Your task to perform on an android device: toggle location history Image 0: 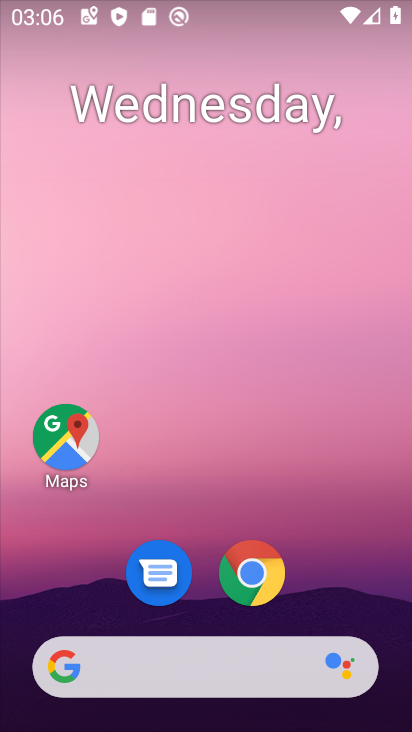
Step 0: drag from (333, 598) to (336, 156)
Your task to perform on an android device: toggle location history Image 1: 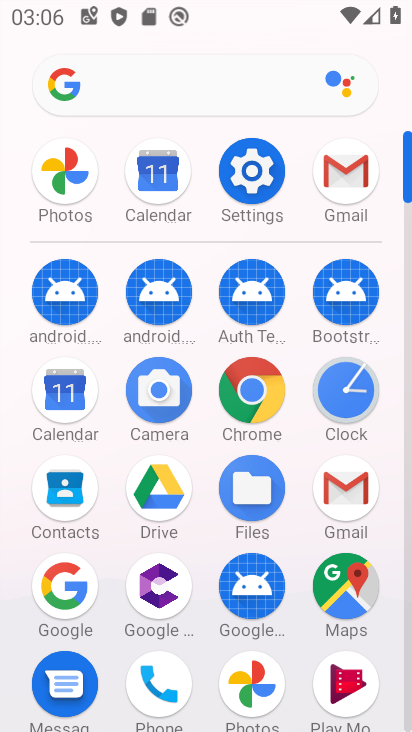
Step 1: click (253, 169)
Your task to perform on an android device: toggle location history Image 2: 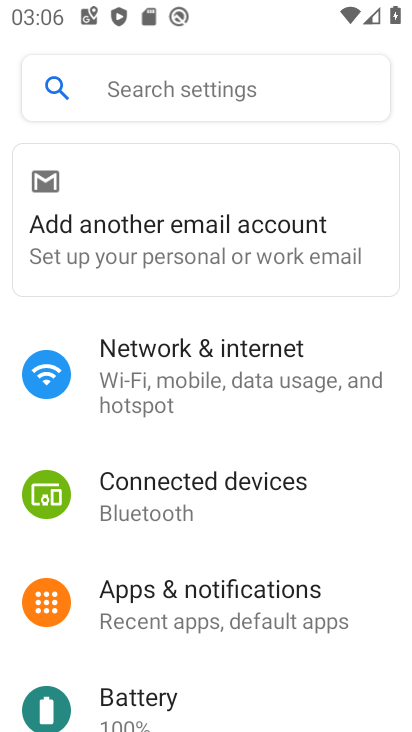
Step 2: drag from (205, 540) to (254, 416)
Your task to perform on an android device: toggle location history Image 3: 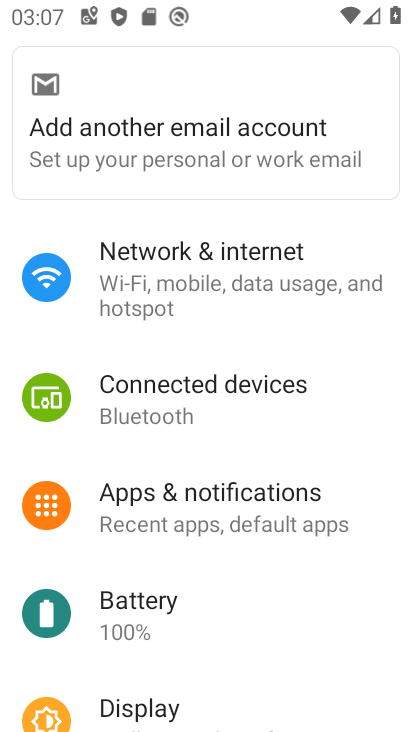
Step 3: drag from (198, 561) to (265, 414)
Your task to perform on an android device: toggle location history Image 4: 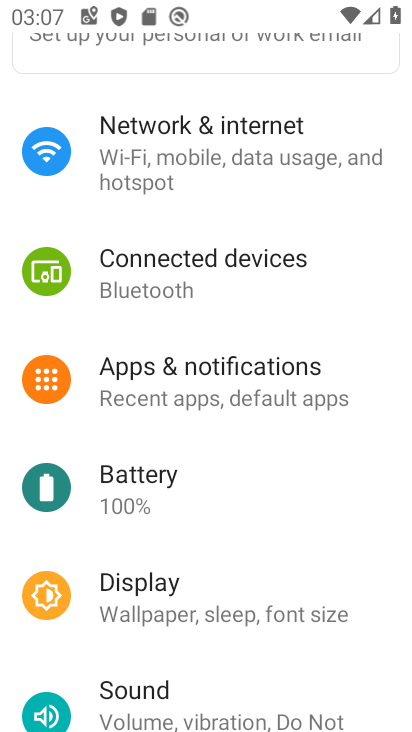
Step 4: drag from (217, 515) to (227, 387)
Your task to perform on an android device: toggle location history Image 5: 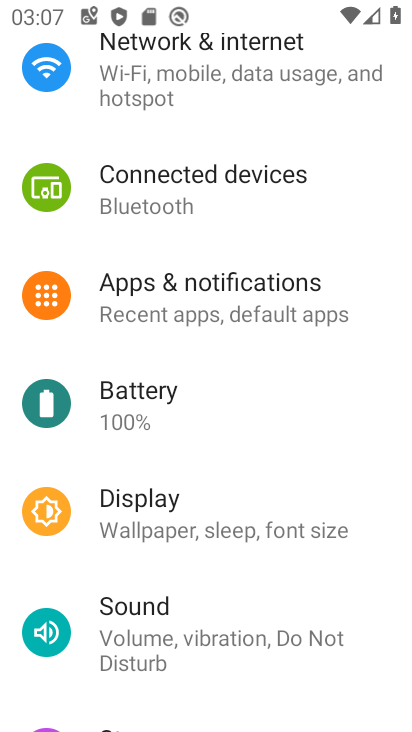
Step 5: drag from (208, 482) to (287, 334)
Your task to perform on an android device: toggle location history Image 6: 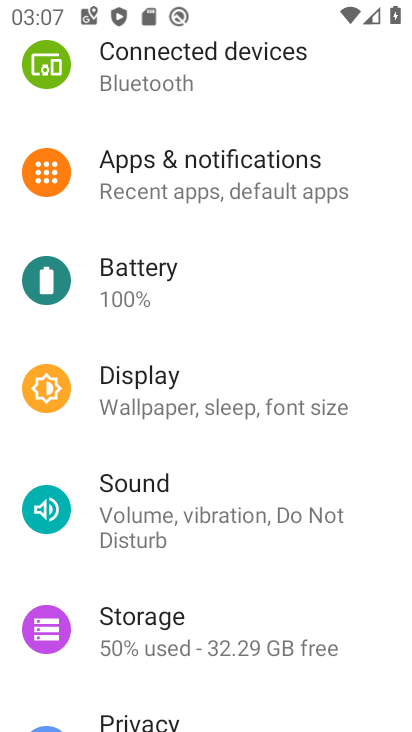
Step 6: drag from (222, 565) to (289, 350)
Your task to perform on an android device: toggle location history Image 7: 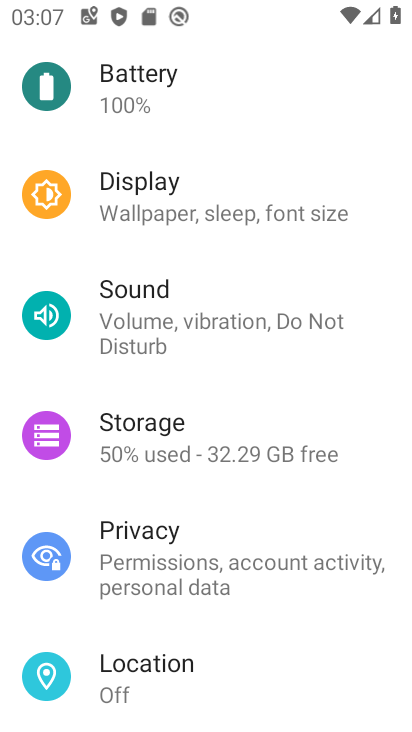
Step 7: drag from (231, 625) to (312, 467)
Your task to perform on an android device: toggle location history Image 8: 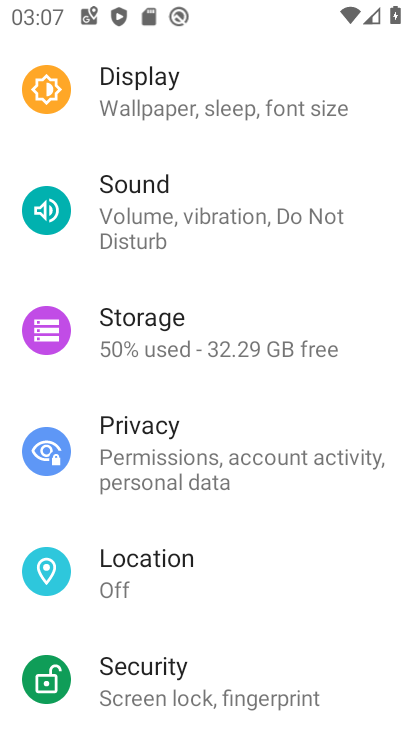
Step 8: click (146, 558)
Your task to perform on an android device: toggle location history Image 9: 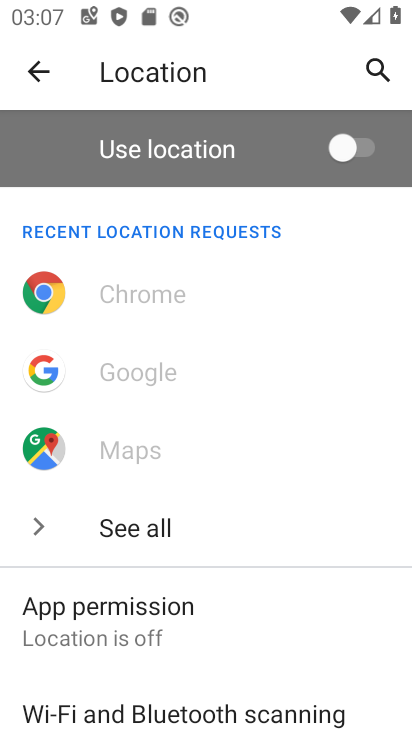
Step 9: drag from (206, 615) to (312, 414)
Your task to perform on an android device: toggle location history Image 10: 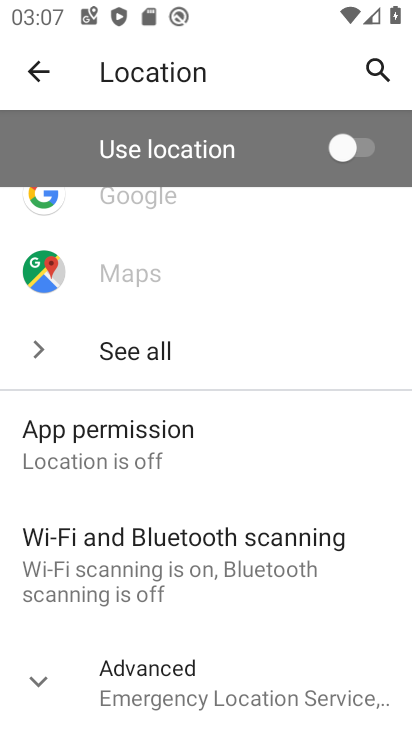
Step 10: drag from (225, 623) to (301, 459)
Your task to perform on an android device: toggle location history Image 11: 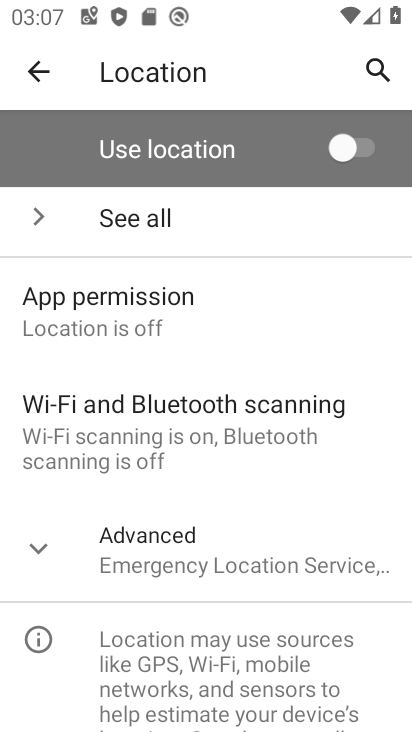
Step 11: click (218, 558)
Your task to perform on an android device: toggle location history Image 12: 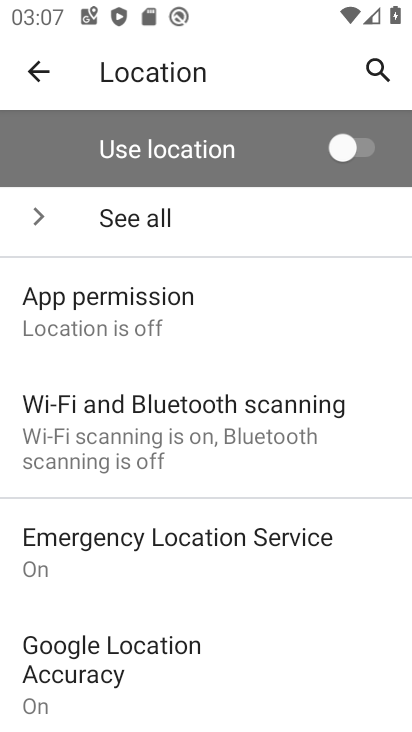
Step 12: drag from (193, 594) to (298, 430)
Your task to perform on an android device: toggle location history Image 13: 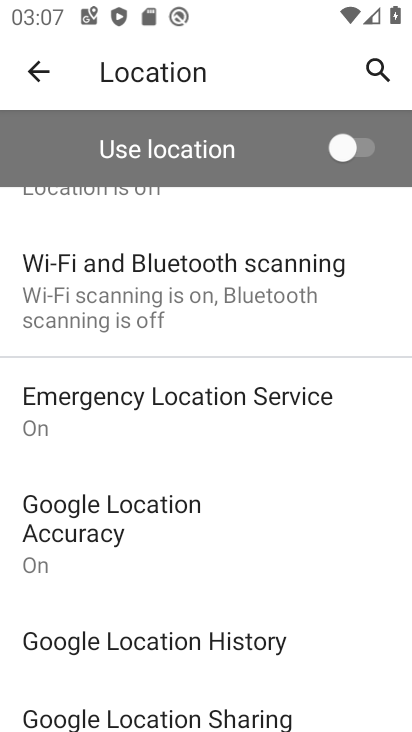
Step 13: drag from (177, 617) to (271, 489)
Your task to perform on an android device: toggle location history Image 14: 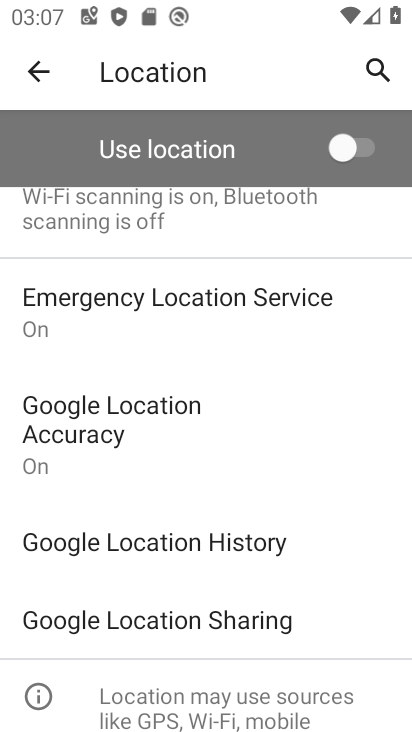
Step 14: click (217, 539)
Your task to perform on an android device: toggle location history Image 15: 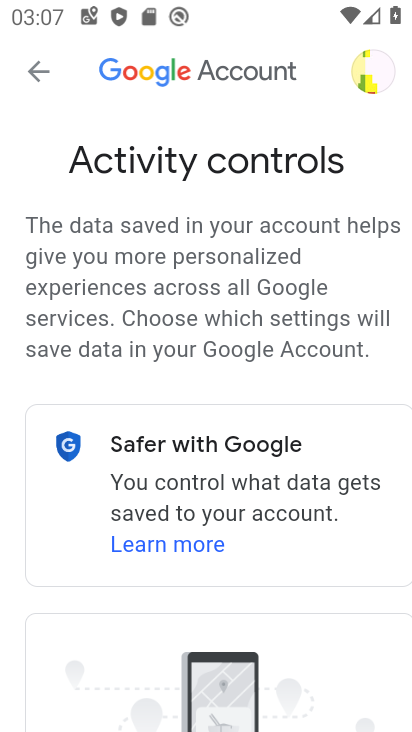
Step 15: drag from (304, 685) to (302, 240)
Your task to perform on an android device: toggle location history Image 16: 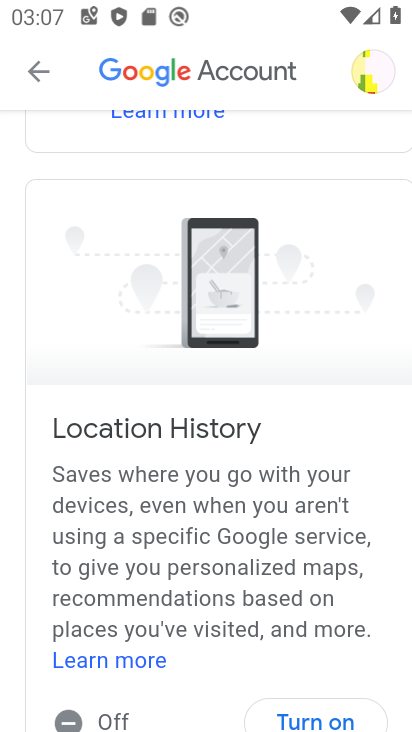
Step 16: drag from (214, 579) to (267, 346)
Your task to perform on an android device: toggle location history Image 17: 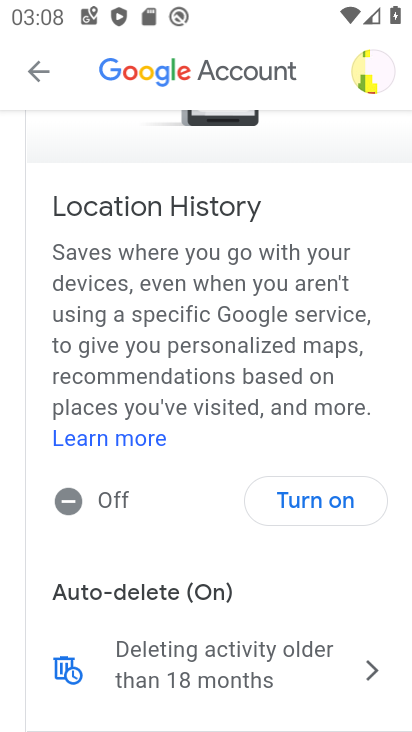
Step 17: click (310, 501)
Your task to perform on an android device: toggle location history Image 18: 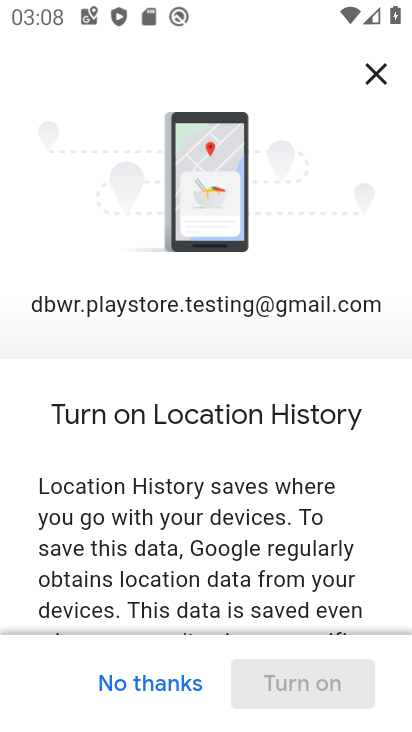
Step 18: drag from (289, 556) to (323, 302)
Your task to perform on an android device: toggle location history Image 19: 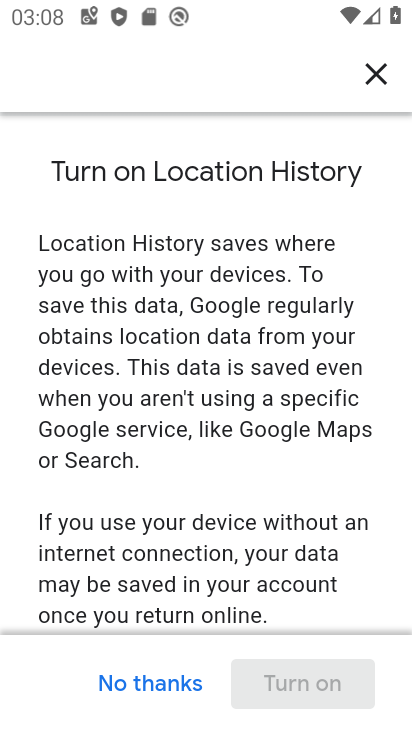
Step 19: drag from (307, 508) to (376, 267)
Your task to perform on an android device: toggle location history Image 20: 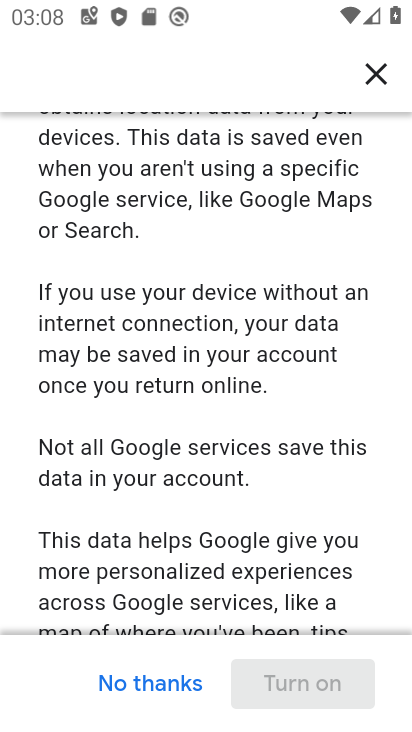
Step 20: drag from (296, 535) to (331, 297)
Your task to perform on an android device: toggle location history Image 21: 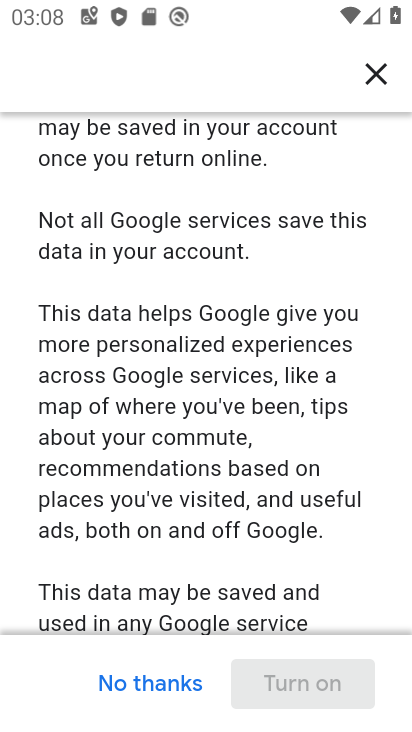
Step 21: drag from (312, 554) to (352, 265)
Your task to perform on an android device: toggle location history Image 22: 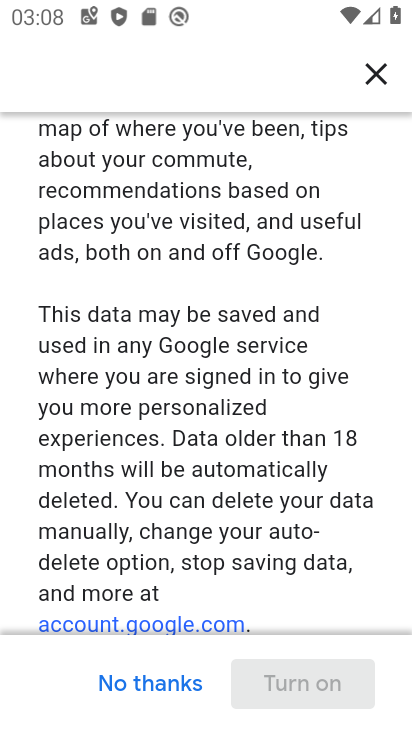
Step 22: drag from (288, 498) to (343, 244)
Your task to perform on an android device: toggle location history Image 23: 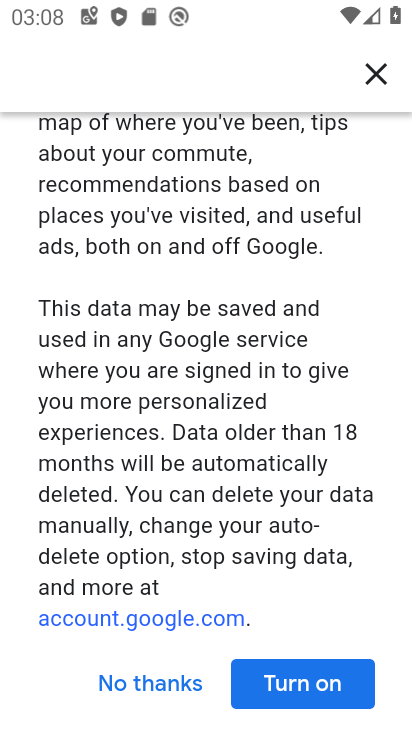
Step 23: click (299, 682)
Your task to perform on an android device: toggle location history Image 24: 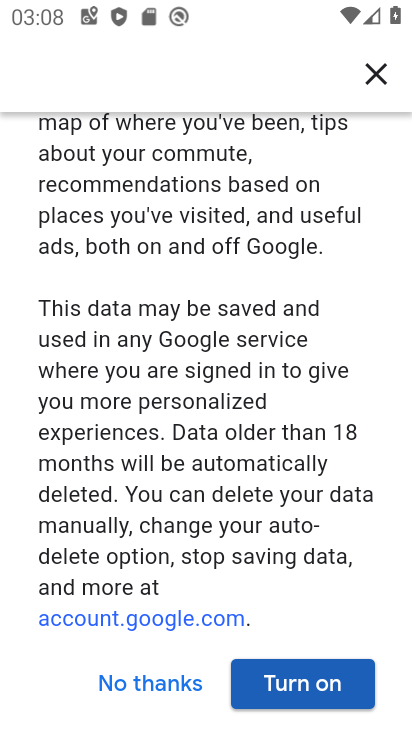
Step 24: click (299, 681)
Your task to perform on an android device: toggle location history Image 25: 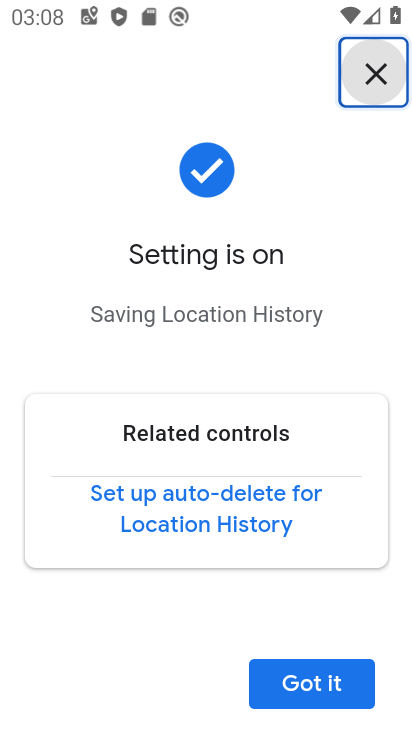
Step 25: click (306, 680)
Your task to perform on an android device: toggle location history Image 26: 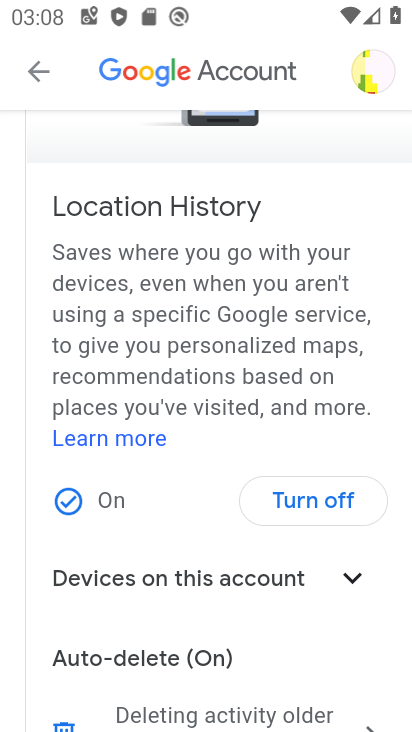
Step 26: task complete